Your task to perform on an android device: Open wifi settings Image 0: 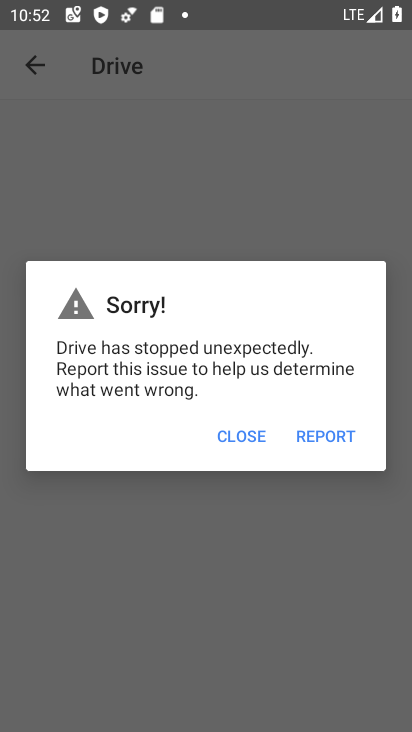
Step 0: press home button
Your task to perform on an android device: Open wifi settings Image 1: 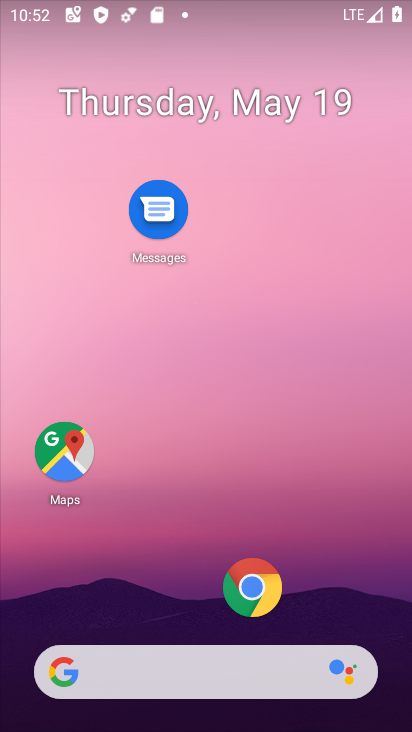
Step 1: drag from (172, 11) to (49, 728)
Your task to perform on an android device: Open wifi settings Image 2: 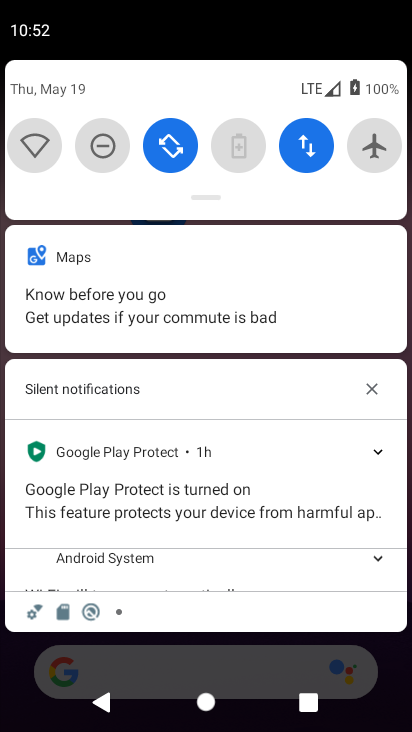
Step 2: click (50, 161)
Your task to perform on an android device: Open wifi settings Image 3: 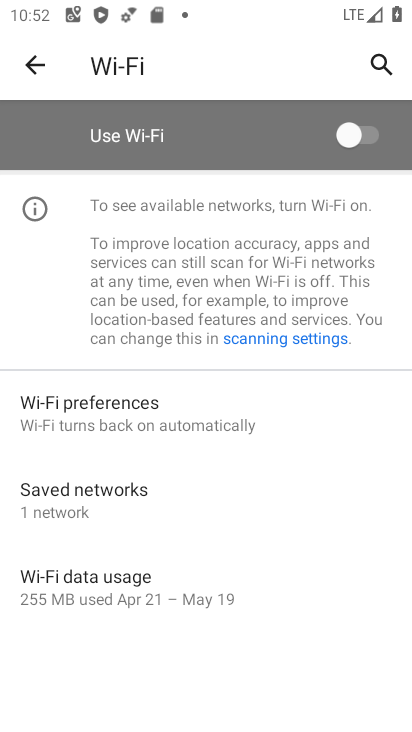
Step 3: task complete